Your task to perform on an android device: open app "Mercado Libre" (install if not already installed) Image 0: 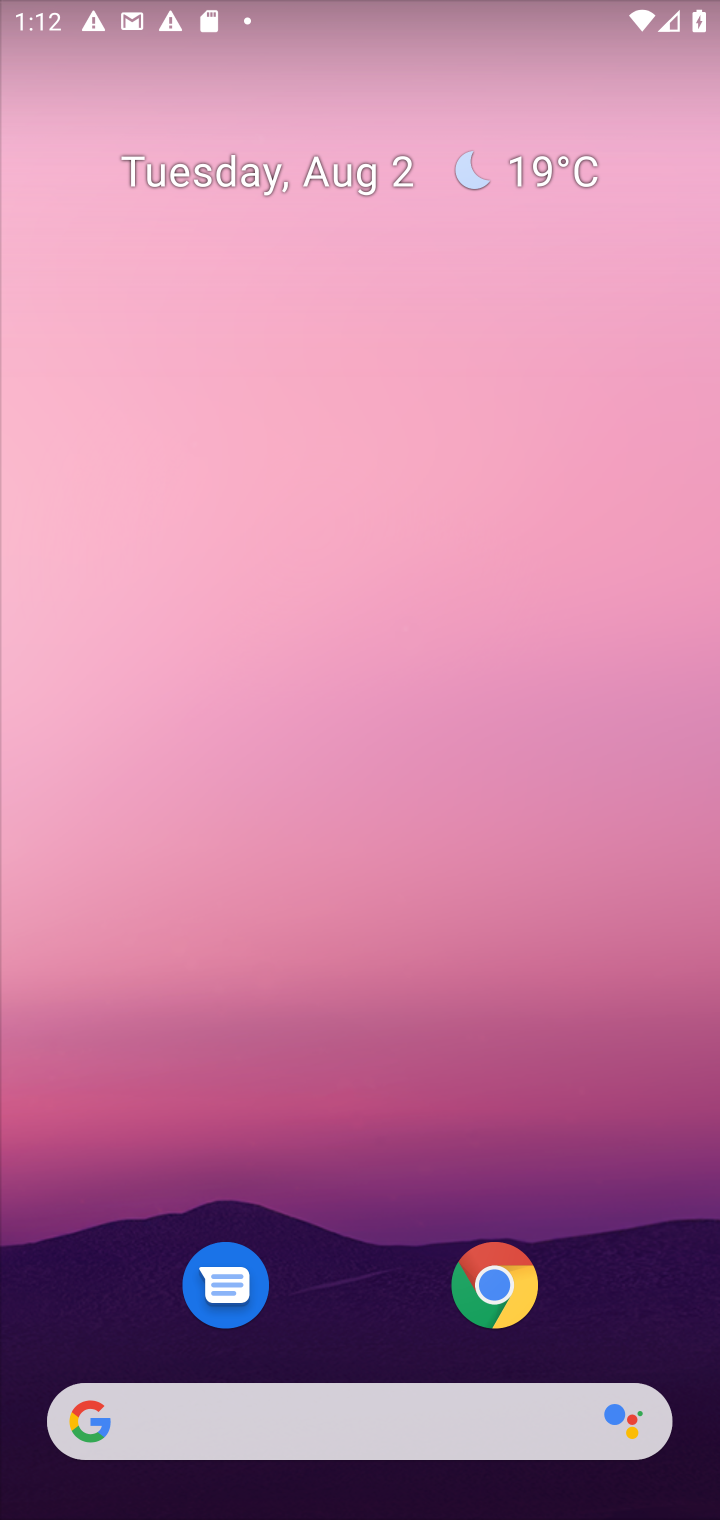
Step 0: drag from (492, 1317) to (521, 363)
Your task to perform on an android device: open app "Mercado Libre" (install if not already installed) Image 1: 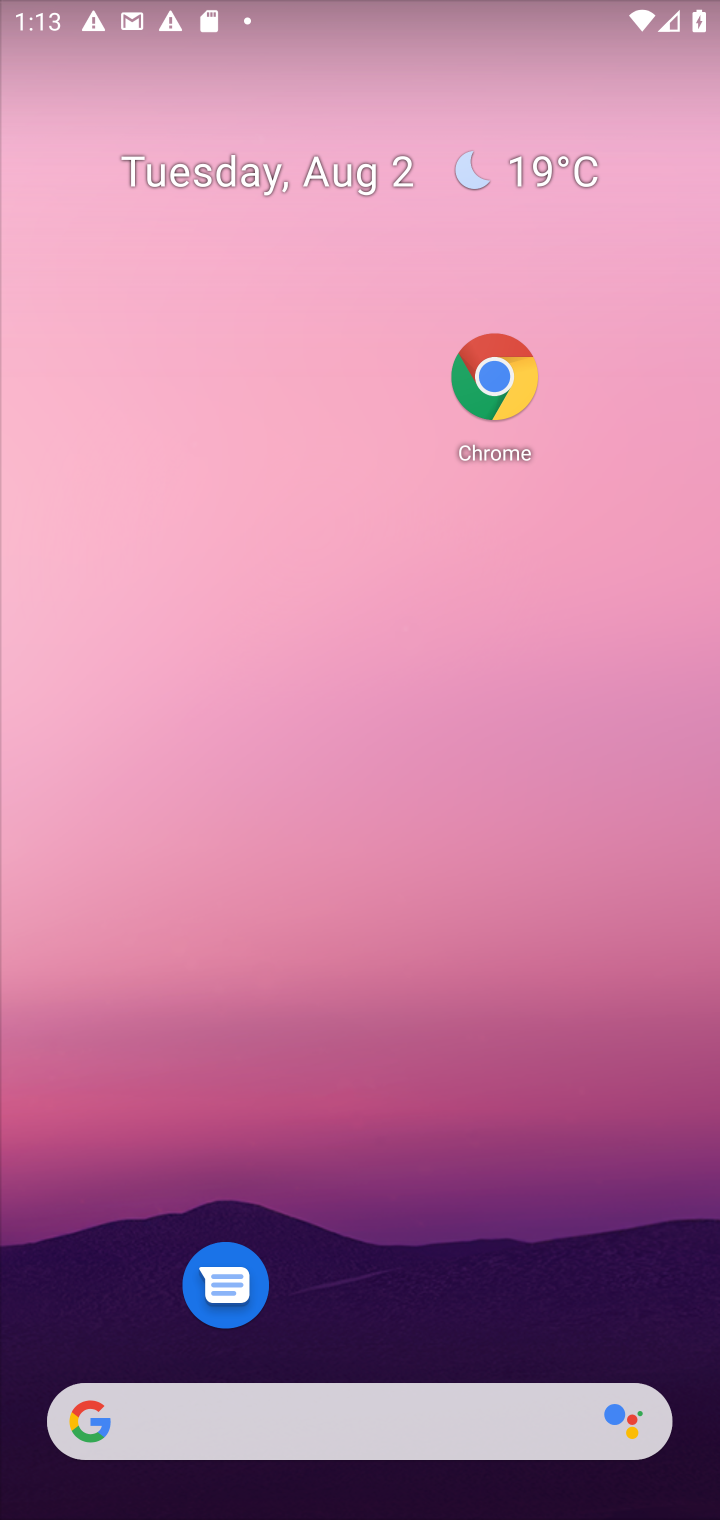
Step 1: drag from (417, 1243) to (420, 461)
Your task to perform on an android device: open app "Mercado Libre" (install if not already installed) Image 2: 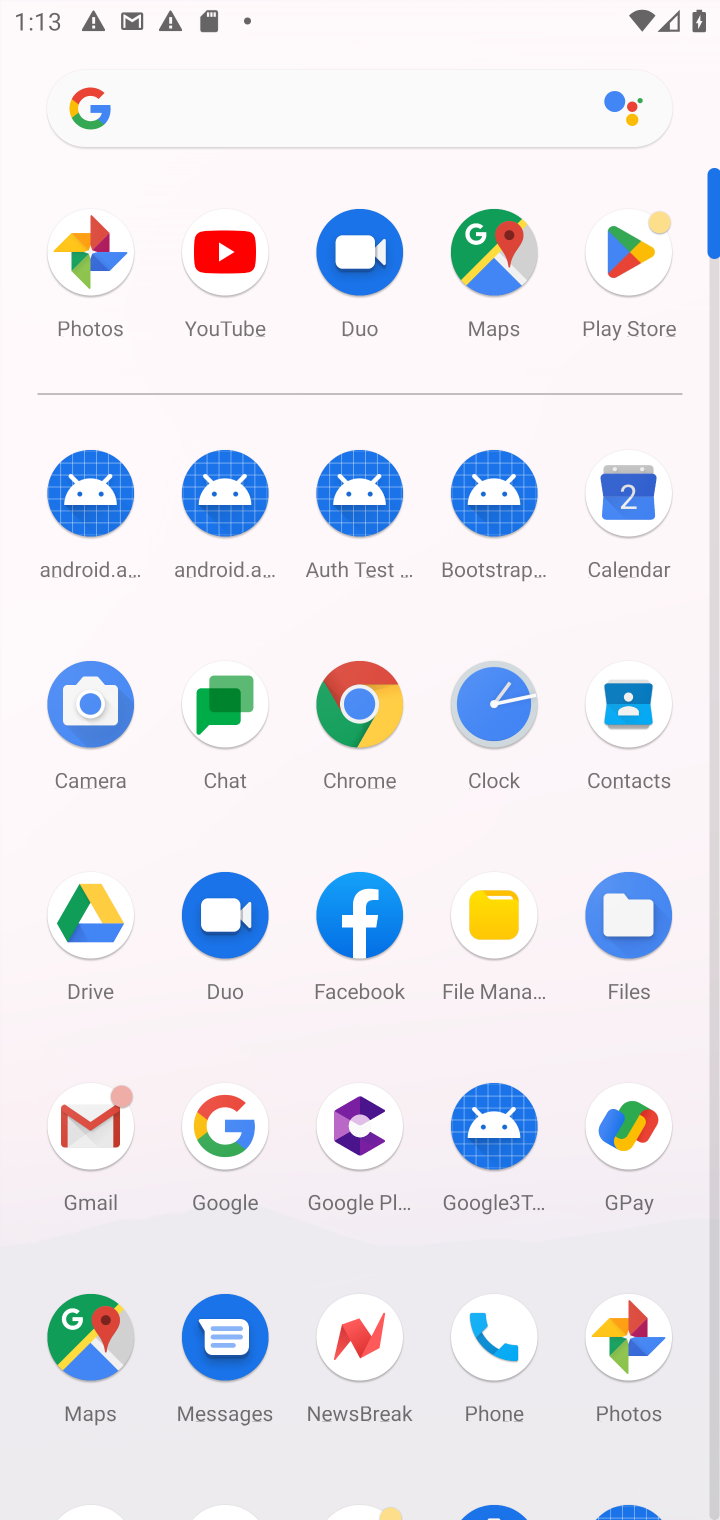
Step 2: click (595, 278)
Your task to perform on an android device: open app "Mercado Libre" (install if not already installed) Image 3: 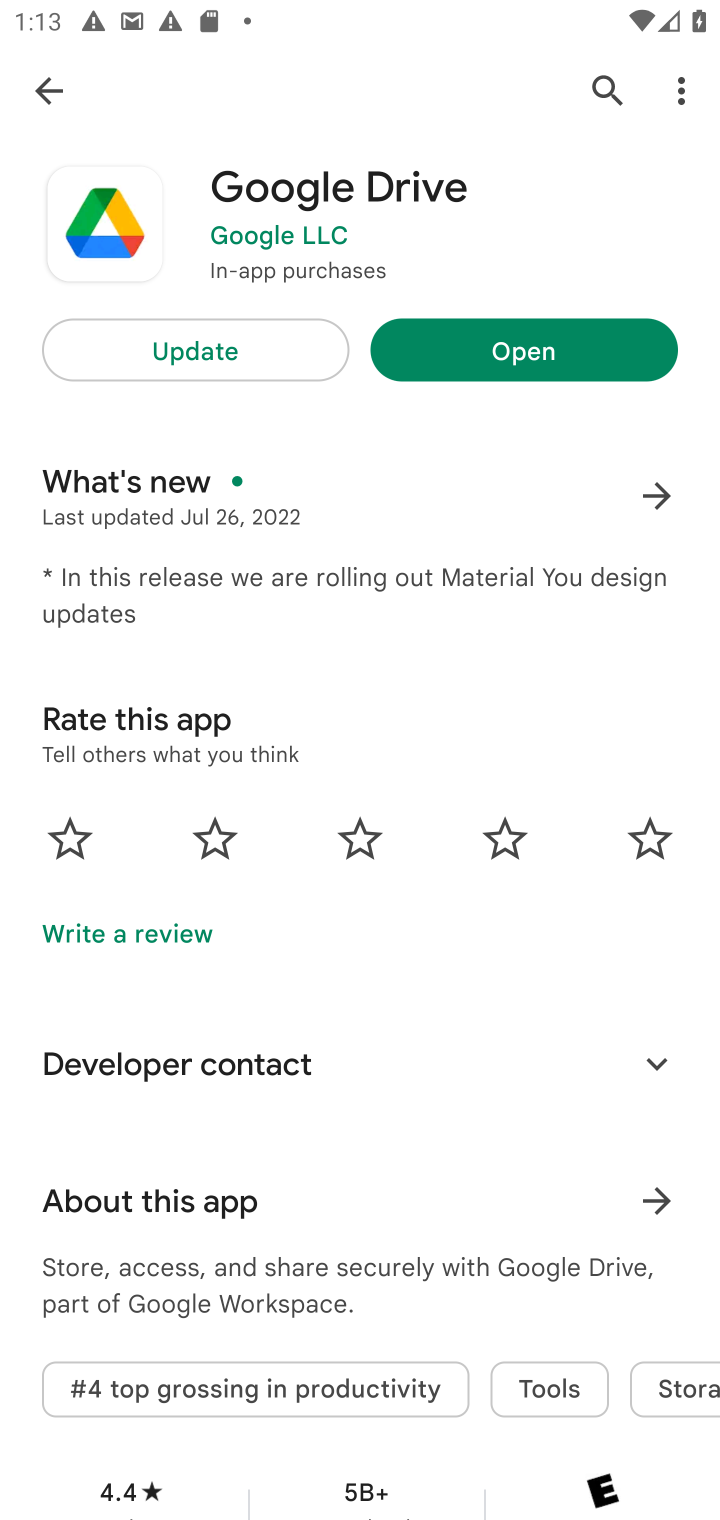
Step 3: click (594, 75)
Your task to perform on an android device: open app "Mercado Libre" (install if not already installed) Image 4: 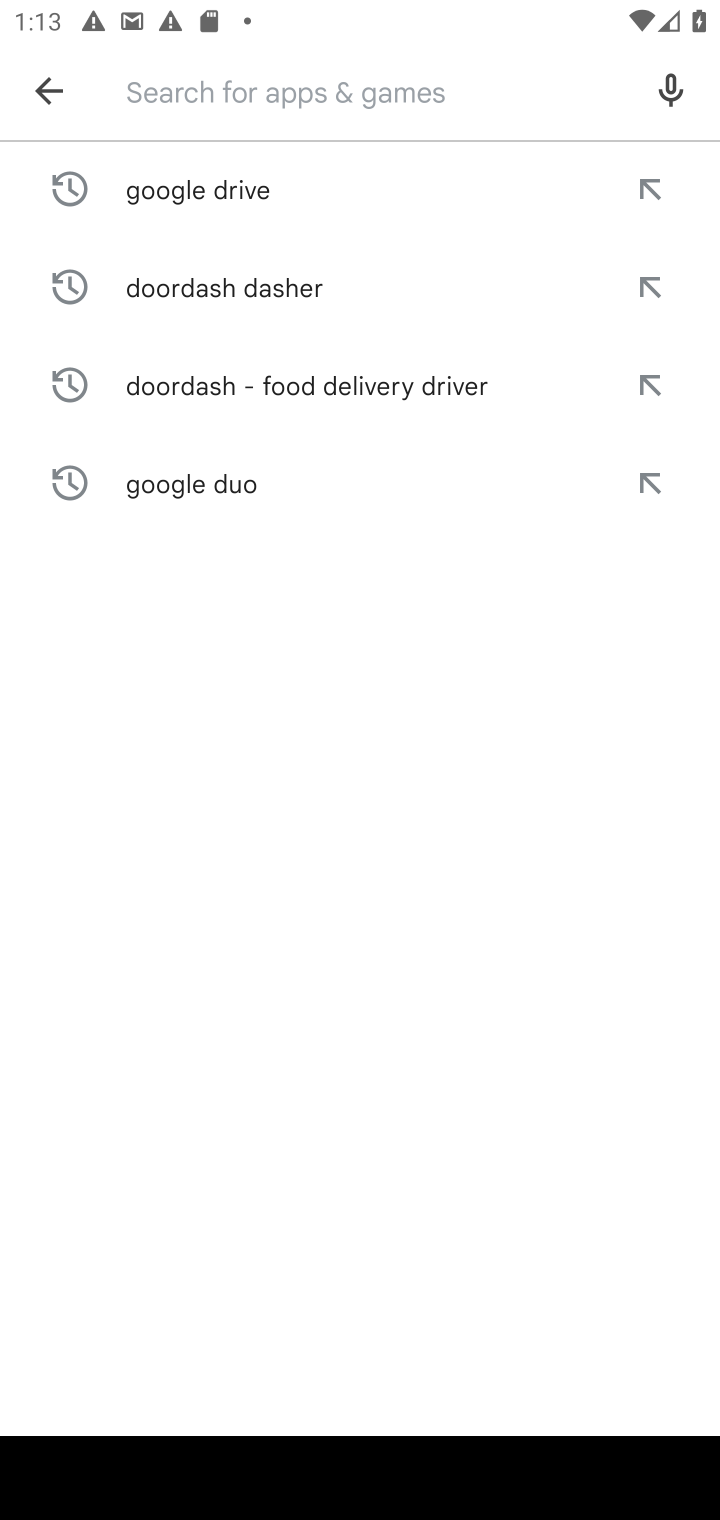
Step 4: click (385, 78)
Your task to perform on an android device: open app "Mercado Libre" (install if not already installed) Image 5: 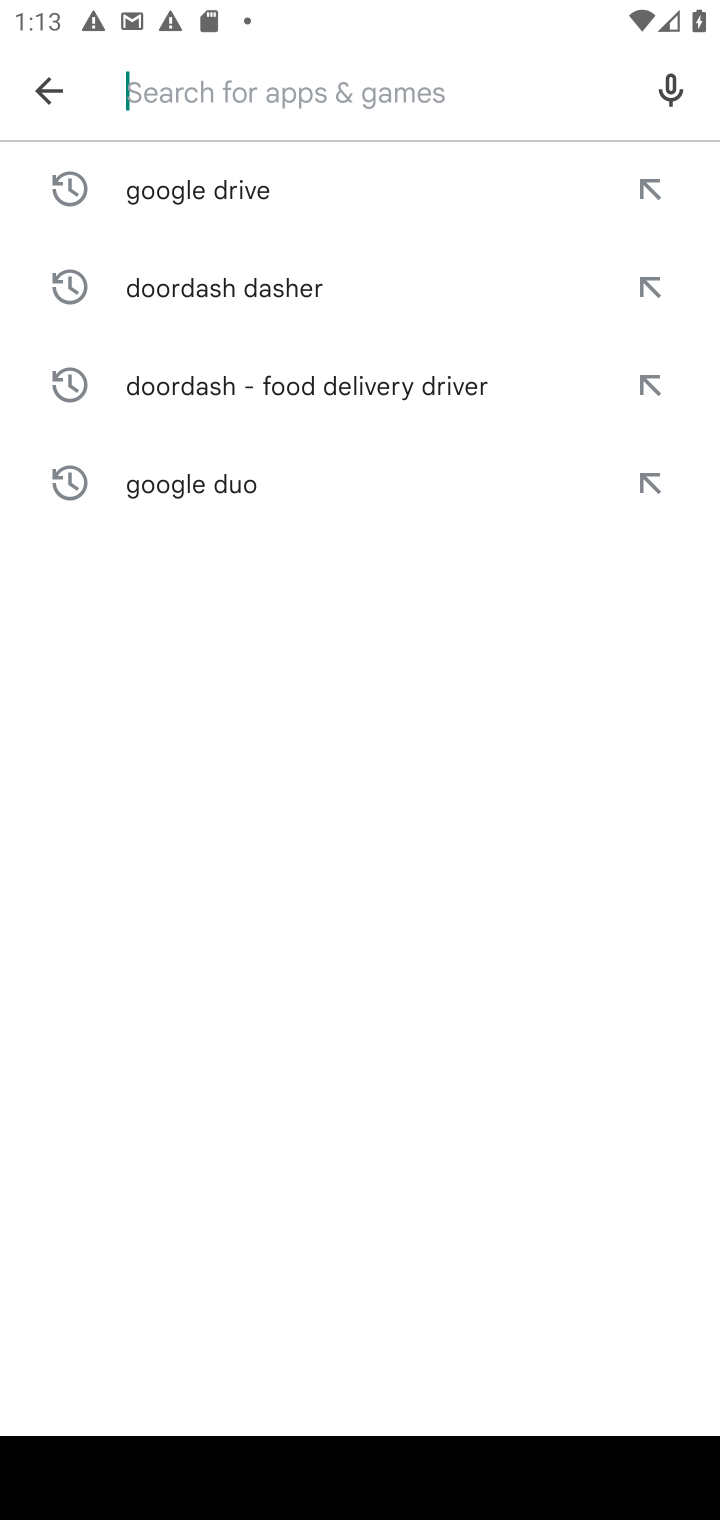
Step 5: type "Mercado Libre"
Your task to perform on an android device: open app "Mercado Libre" (install if not already installed) Image 6: 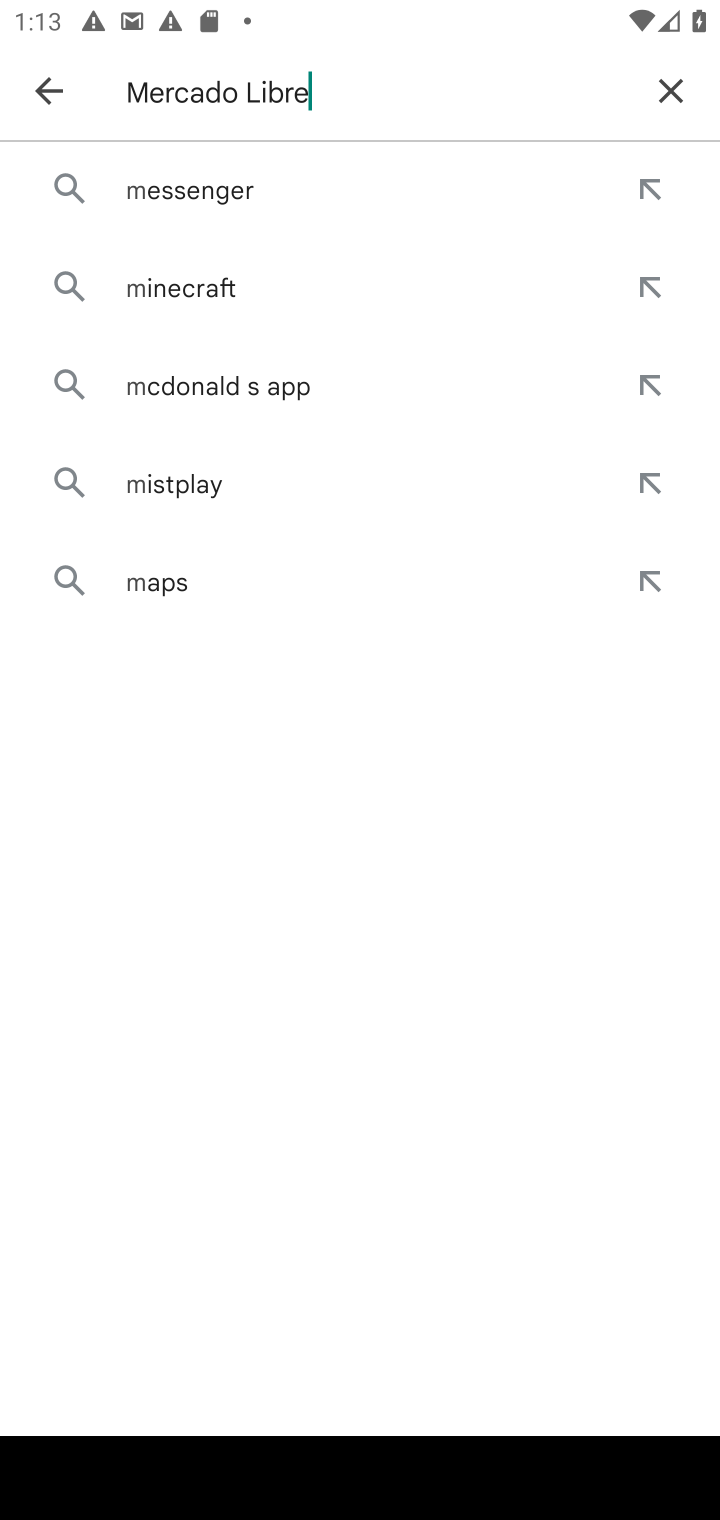
Step 6: type ""
Your task to perform on an android device: open app "Mercado Libre" (install if not already installed) Image 7: 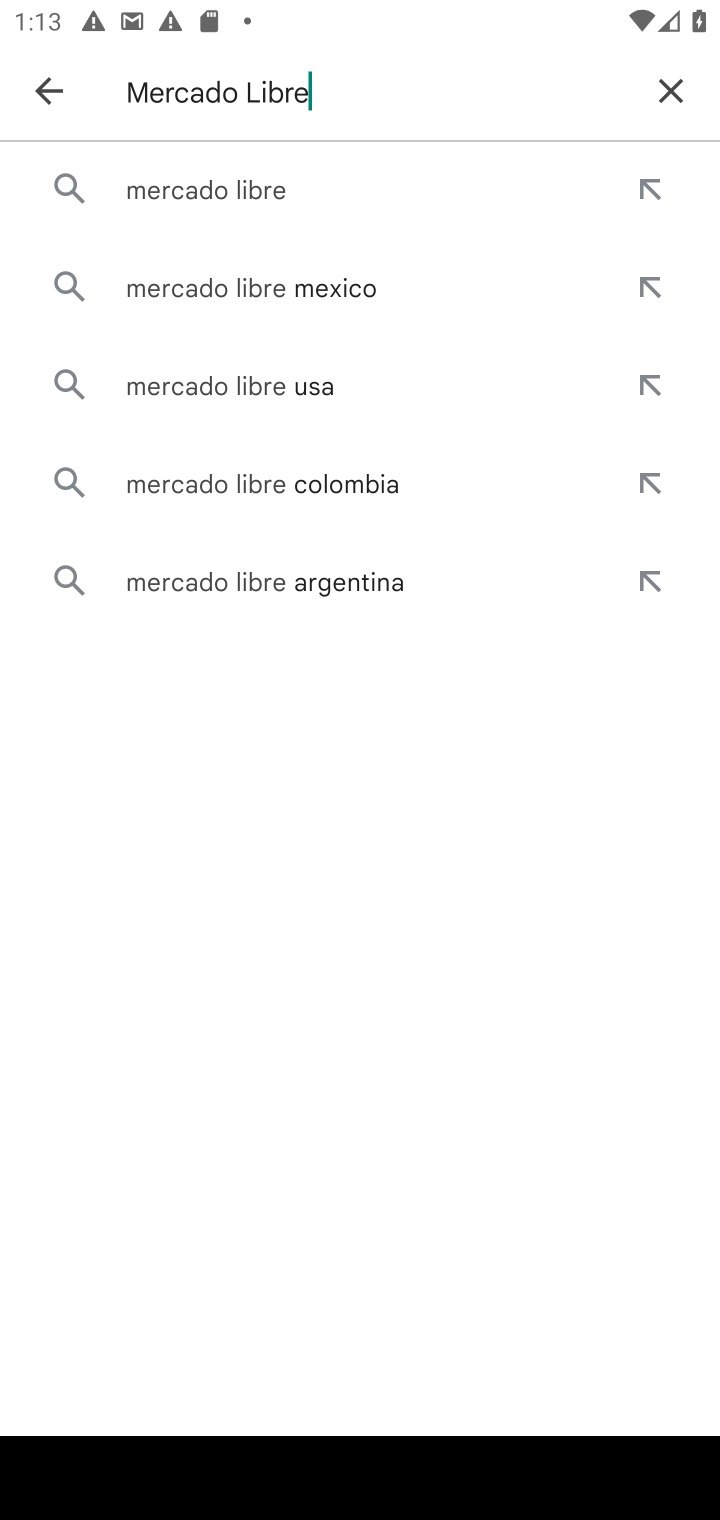
Step 7: click (144, 192)
Your task to perform on an android device: open app "Mercado Libre" (install if not already installed) Image 8: 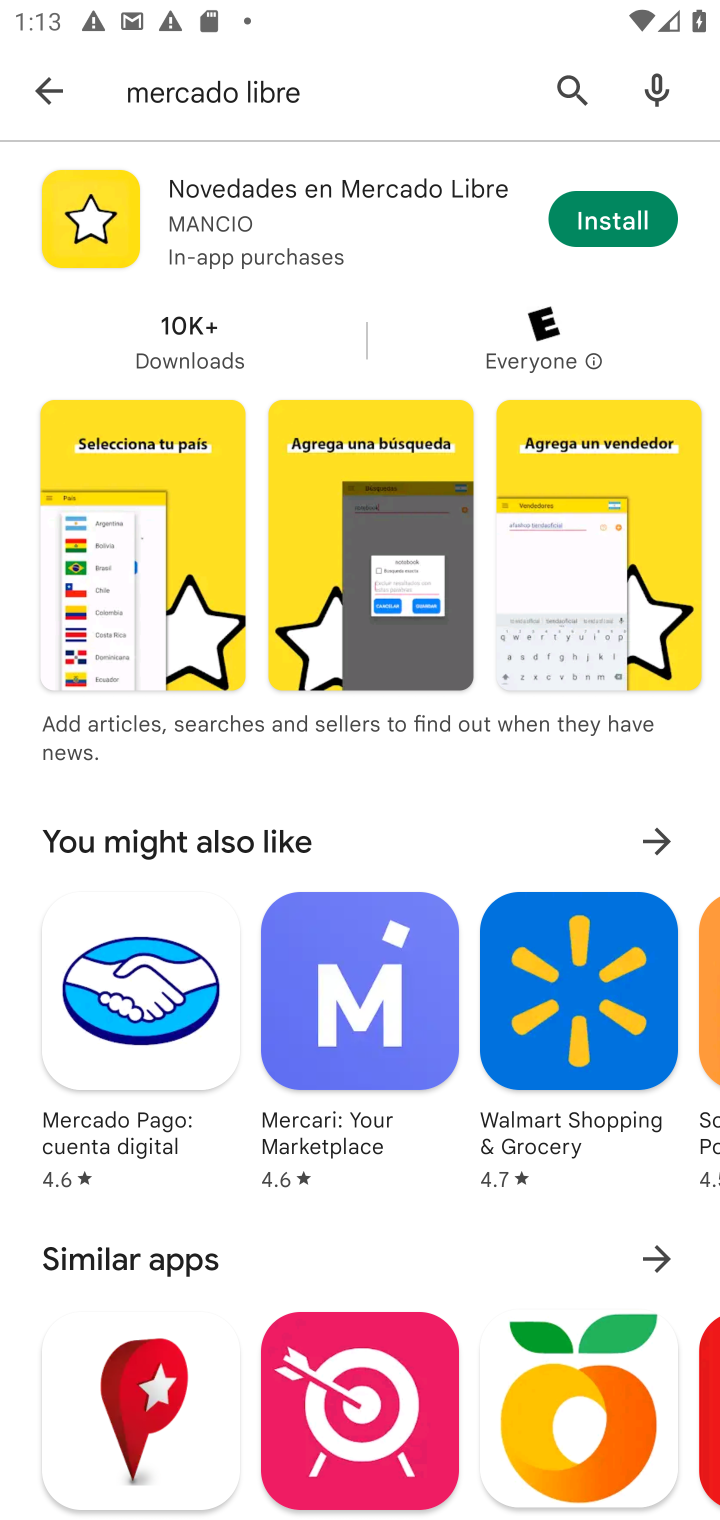
Step 8: click (561, 215)
Your task to perform on an android device: open app "Mercado Libre" (install if not already installed) Image 9: 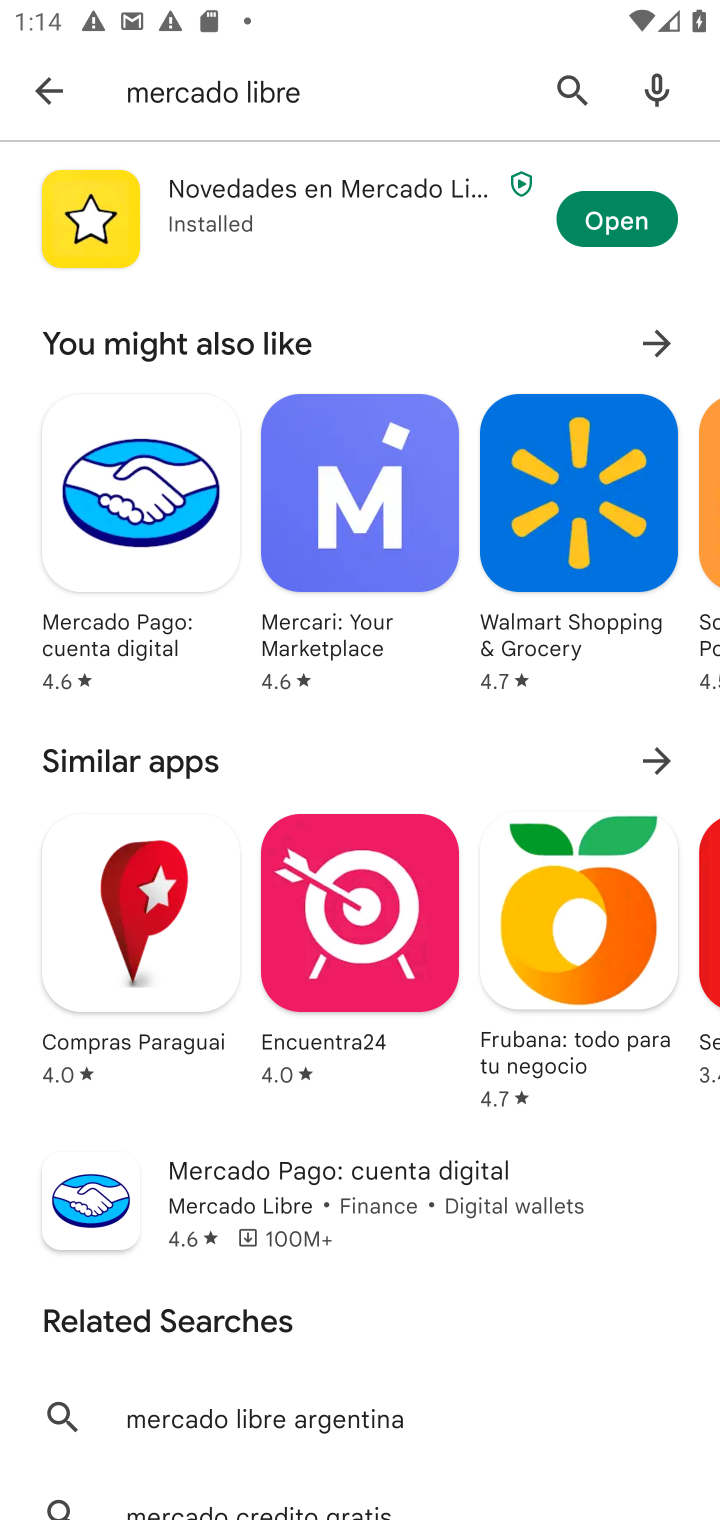
Step 9: click (625, 211)
Your task to perform on an android device: open app "Mercado Libre" (install if not already installed) Image 10: 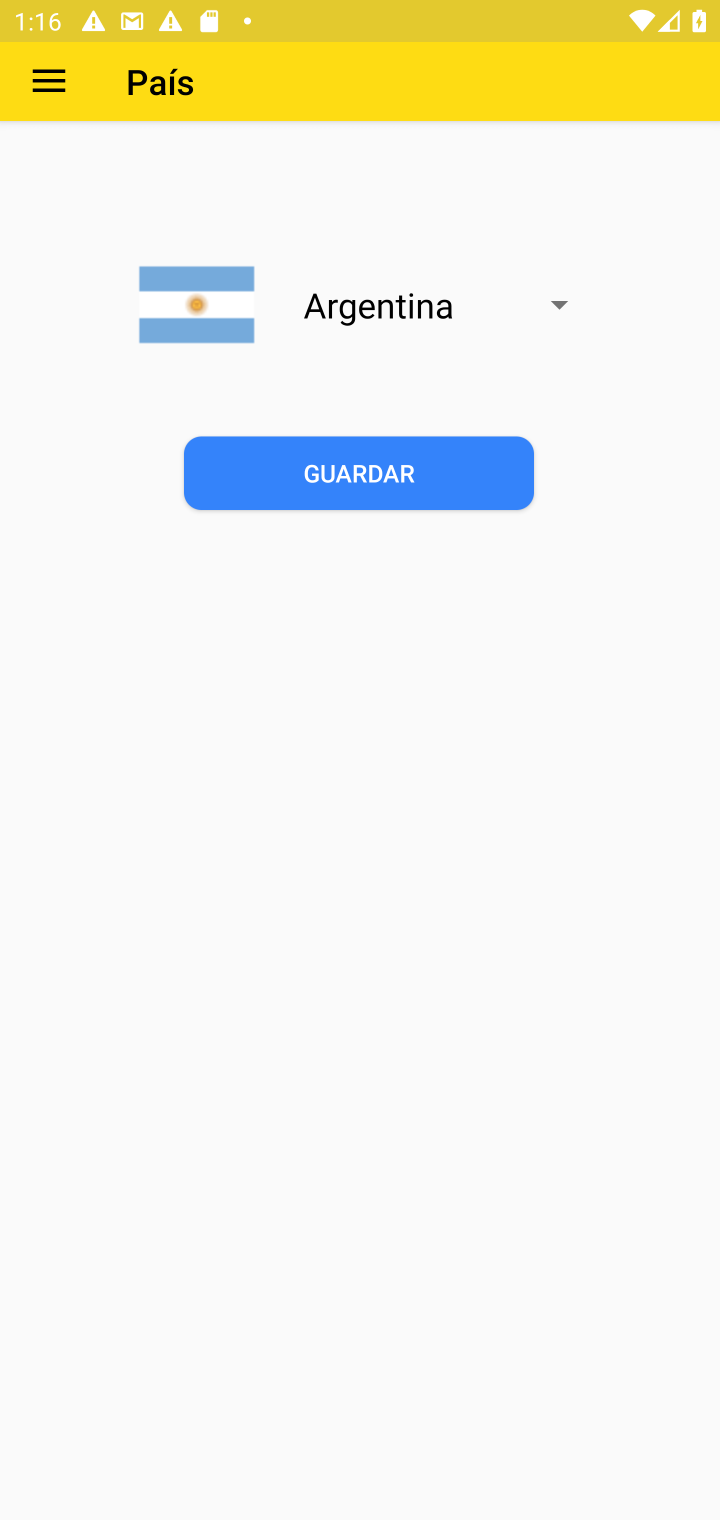
Step 10: task complete